Your task to perform on an android device: turn on wifi Image 0: 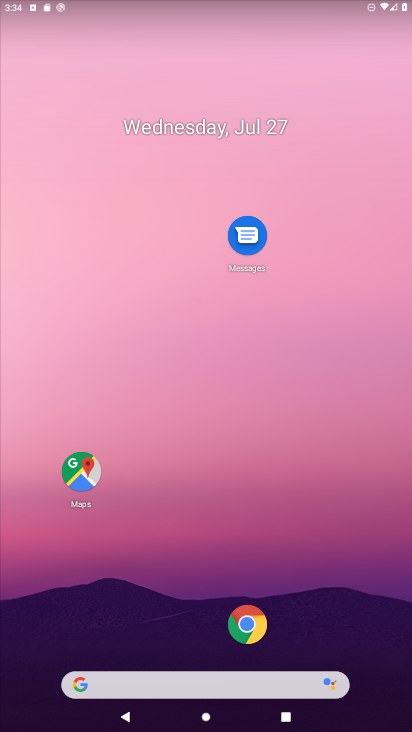
Step 0: drag from (142, 2) to (0, 418)
Your task to perform on an android device: turn on wifi Image 1: 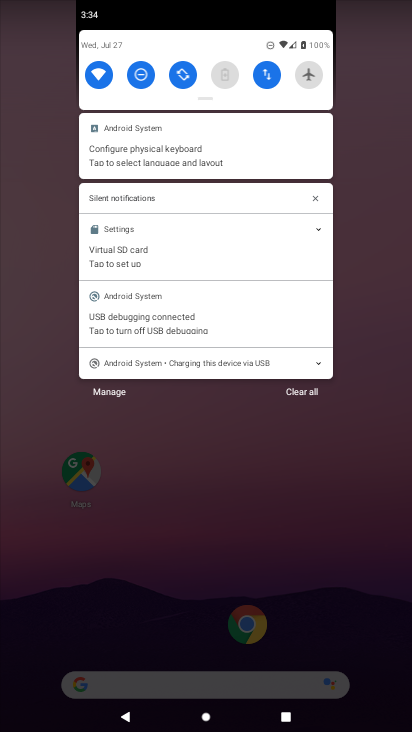
Step 1: task complete